Your task to perform on an android device: toggle translation in the chrome app Image 0: 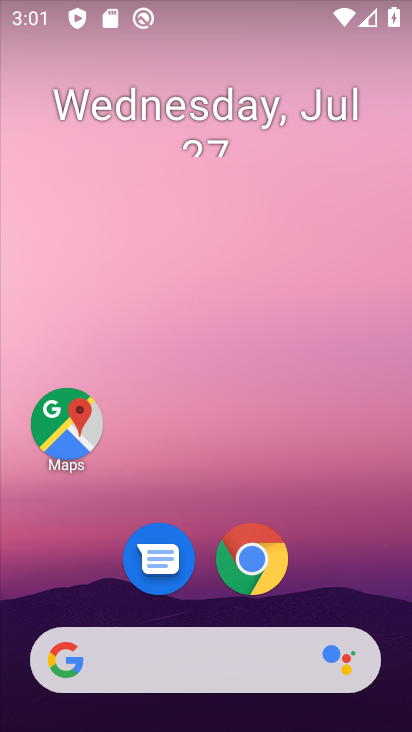
Step 0: click (242, 571)
Your task to perform on an android device: toggle translation in the chrome app Image 1: 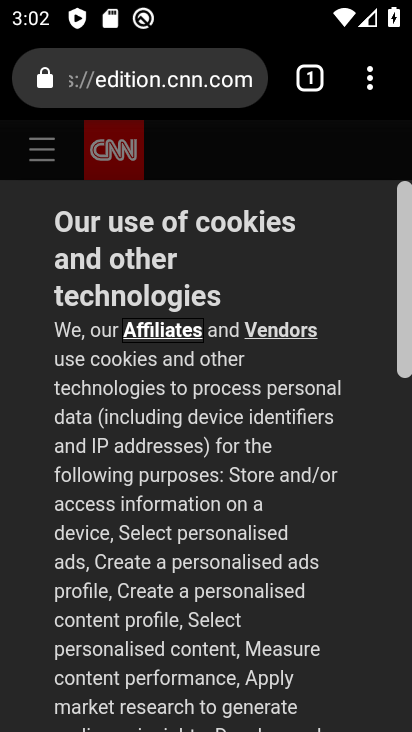
Step 1: drag from (365, 81) to (151, 612)
Your task to perform on an android device: toggle translation in the chrome app Image 2: 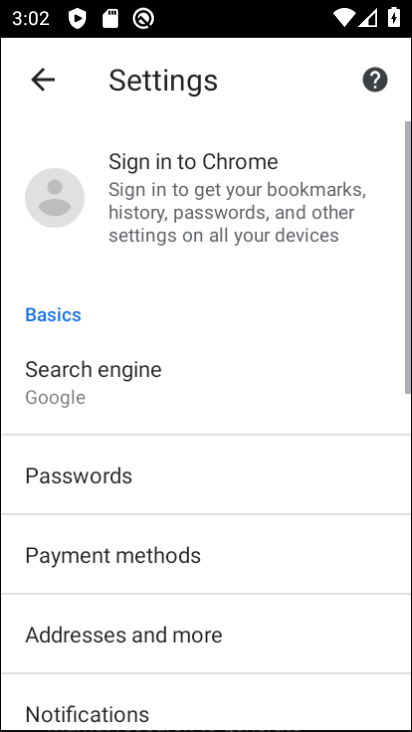
Step 2: drag from (153, 618) to (319, 133)
Your task to perform on an android device: toggle translation in the chrome app Image 3: 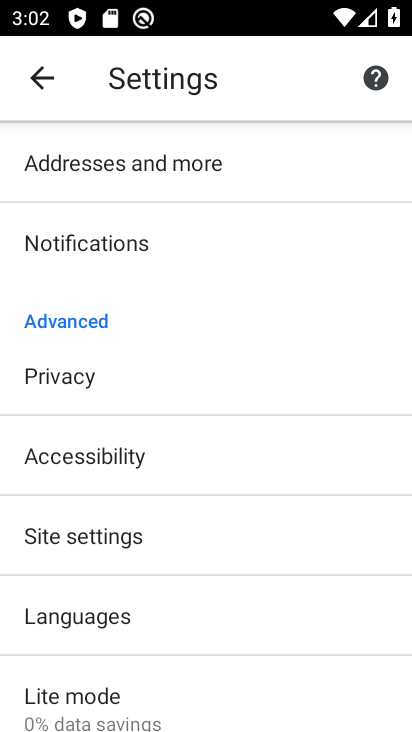
Step 3: click (131, 603)
Your task to perform on an android device: toggle translation in the chrome app Image 4: 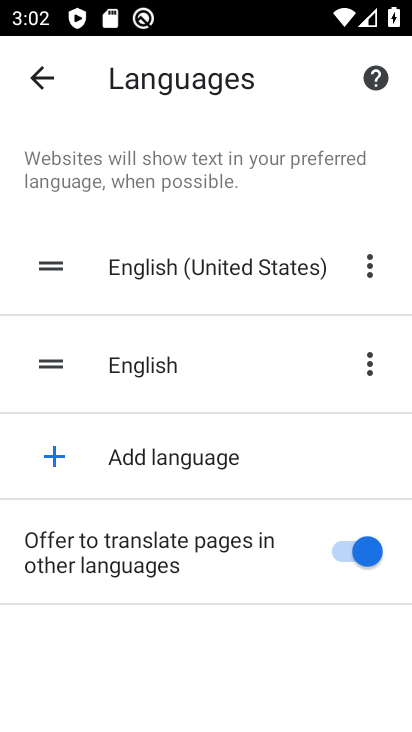
Step 4: click (374, 543)
Your task to perform on an android device: toggle translation in the chrome app Image 5: 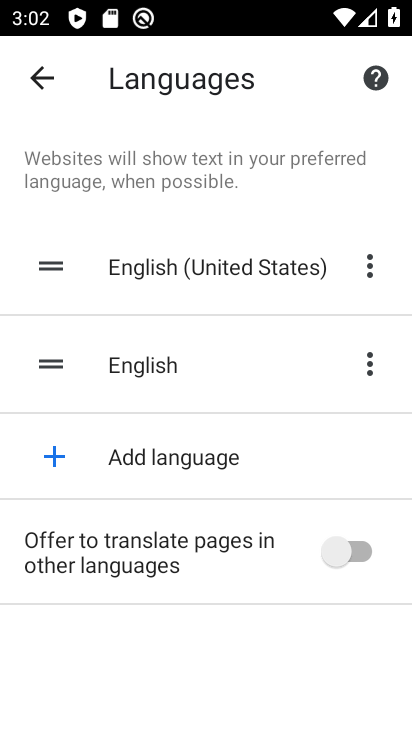
Step 5: task complete